Your task to perform on an android device: Play the last video I watched on Youtube Image 0: 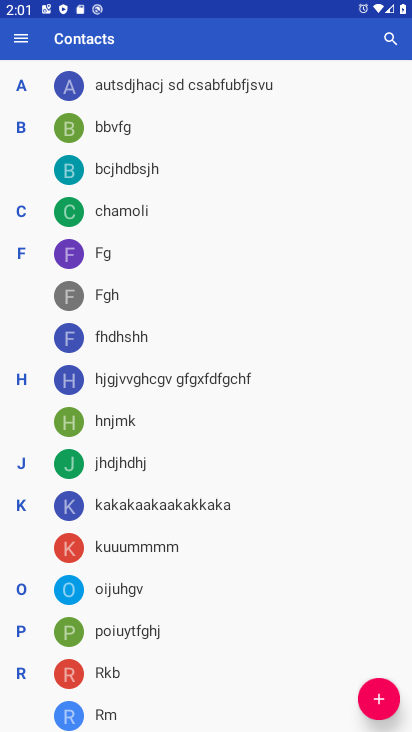
Step 0: press home button
Your task to perform on an android device: Play the last video I watched on Youtube Image 1: 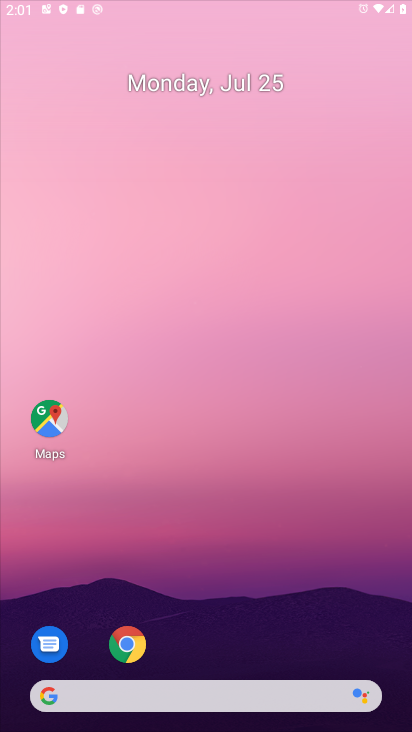
Step 1: drag from (351, 654) to (121, 0)
Your task to perform on an android device: Play the last video I watched on Youtube Image 2: 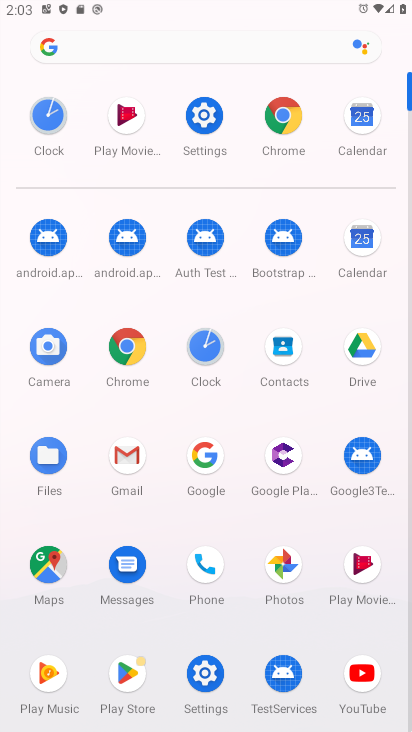
Step 2: click (368, 666)
Your task to perform on an android device: Play the last video I watched on Youtube Image 3: 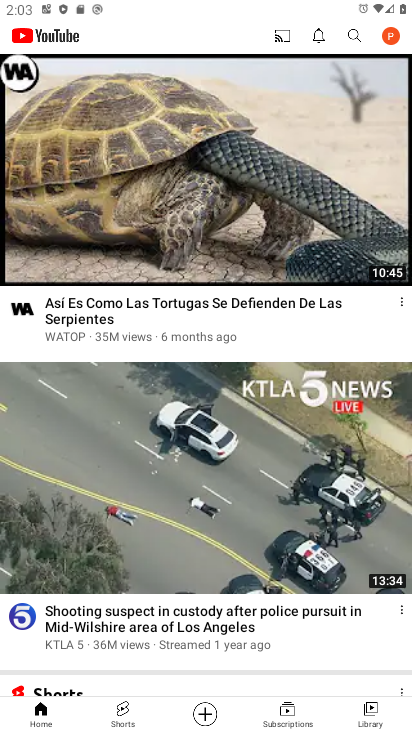
Step 3: task complete